Your task to perform on an android device: Open Google Chrome and open the bookmarks view Image 0: 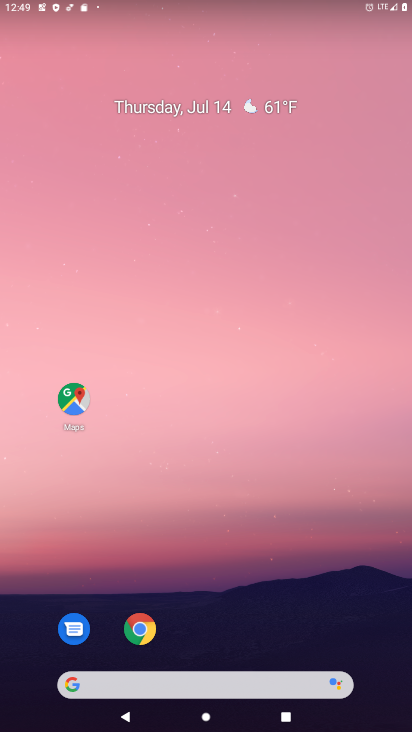
Step 0: click (141, 628)
Your task to perform on an android device: Open Google Chrome and open the bookmarks view Image 1: 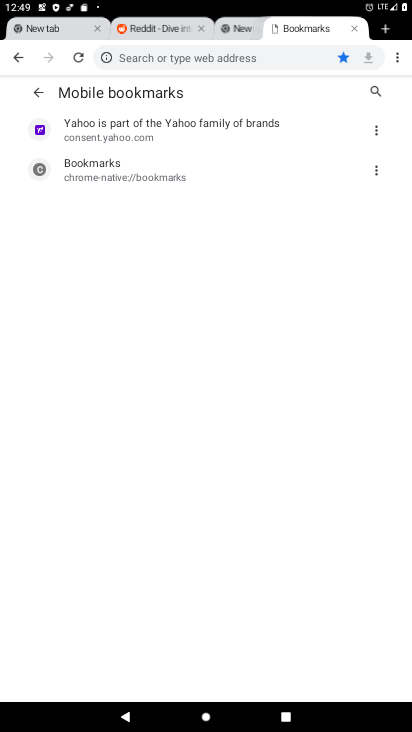
Step 1: click (396, 62)
Your task to perform on an android device: Open Google Chrome and open the bookmarks view Image 2: 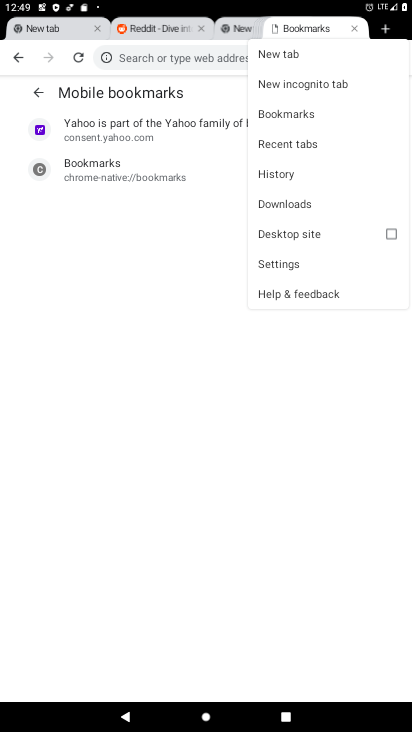
Step 2: click (288, 112)
Your task to perform on an android device: Open Google Chrome and open the bookmarks view Image 3: 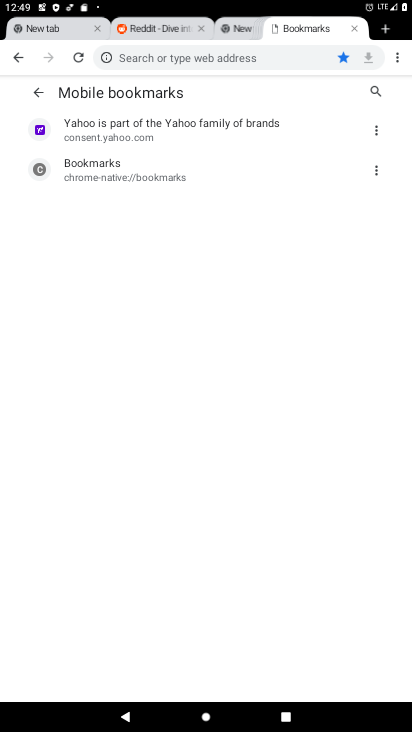
Step 3: click (376, 126)
Your task to perform on an android device: Open Google Chrome and open the bookmarks view Image 4: 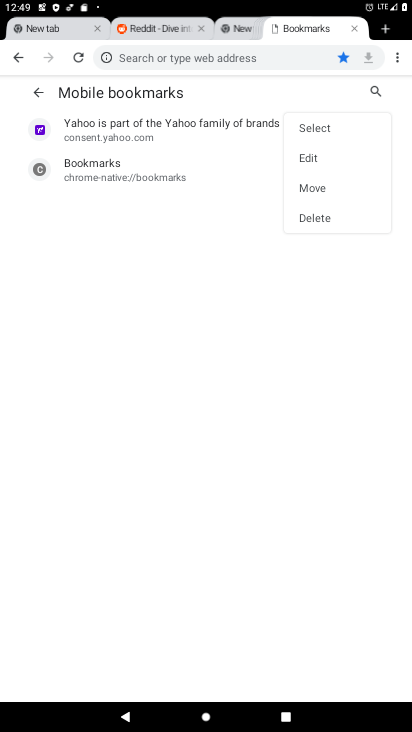
Step 4: click (313, 160)
Your task to perform on an android device: Open Google Chrome and open the bookmarks view Image 5: 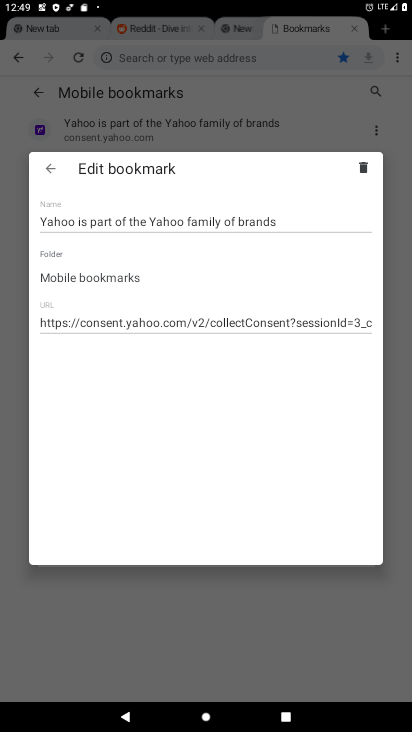
Step 5: task complete